Your task to perform on an android device: Go to display settings Image 0: 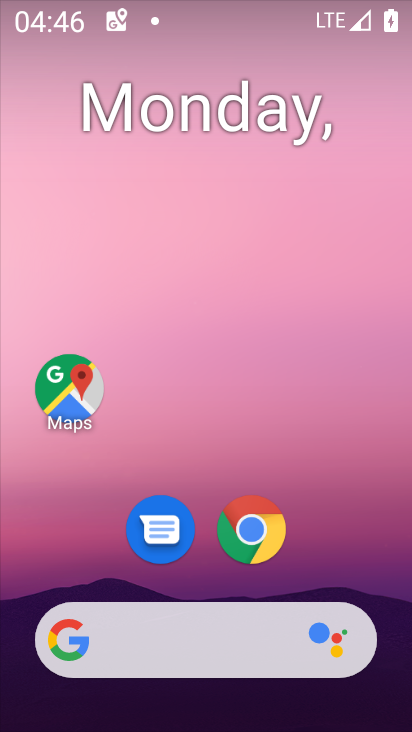
Step 0: drag from (346, 573) to (282, 238)
Your task to perform on an android device: Go to display settings Image 1: 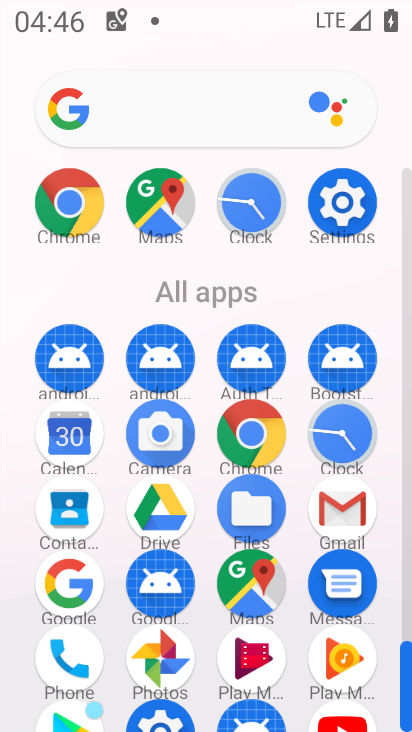
Step 1: click (353, 223)
Your task to perform on an android device: Go to display settings Image 2: 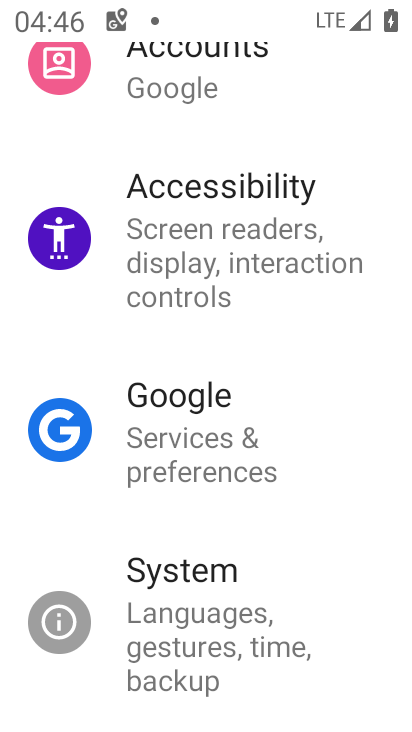
Step 2: drag from (267, 170) to (282, 469)
Your task to perform on an android device: Go to display settings Image 3: 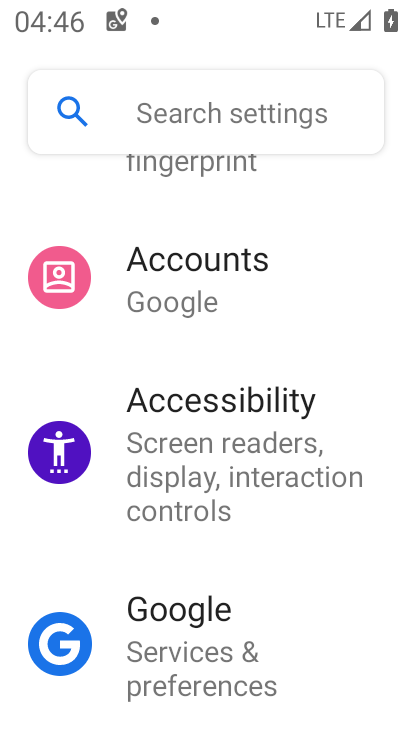
Step 3: drag from (322, 246) to (347, 674)
Your task to perform on an android device: Go to display settings Image 4: 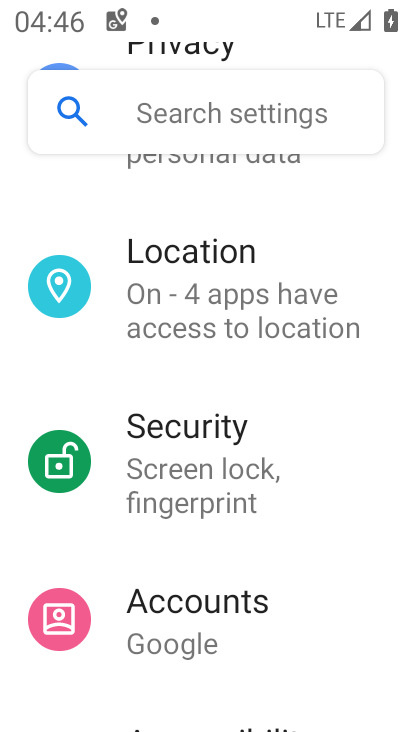
Step 4: drag from (317, 386) to (323, 726)
Your task to perform on an android device: Go to display settings Image 5: 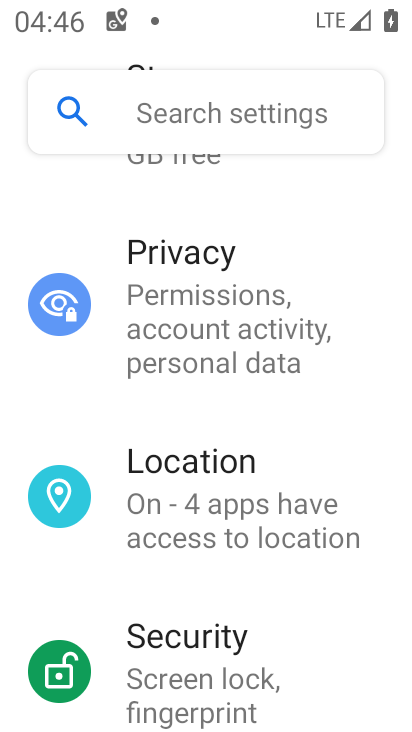
Step 5: drag from (265, 311) to (284, 706)
Your task to perform on an android device: Go to display settings Image 6: 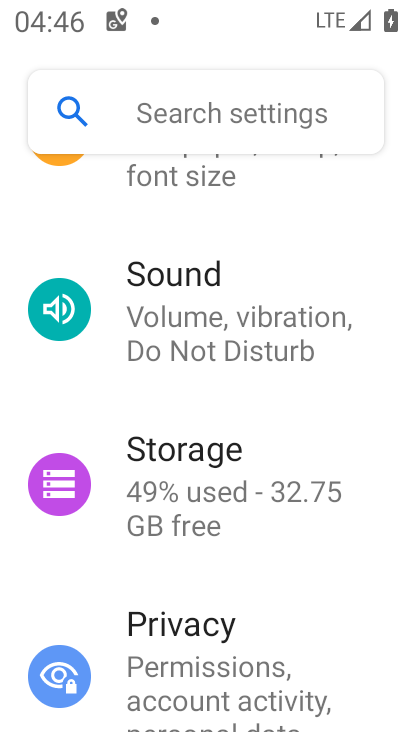
Step 6: drag from (270, 232) to (297, 577)
Your task to perform on an android device: Go to display settings Image 7: 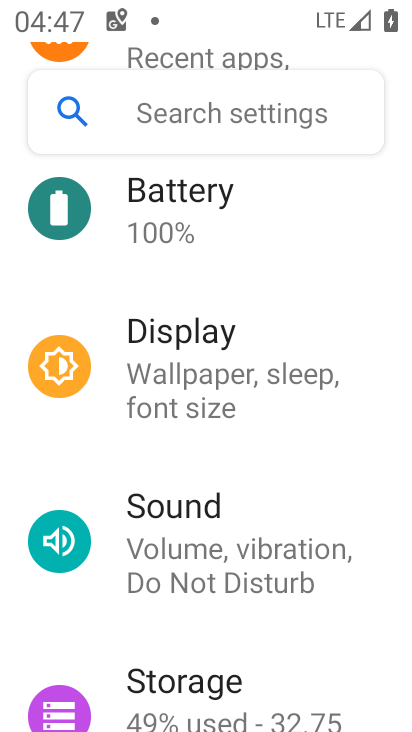
Step 7: click (278, 368)
Your task to perform on an android device: Go to display settings Image 8: 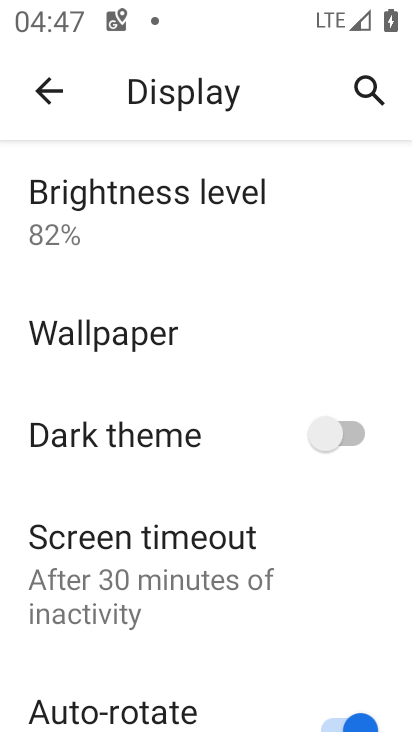
Step 8: task complete